Your task to perform on an android device: open wifi settings Image 0: 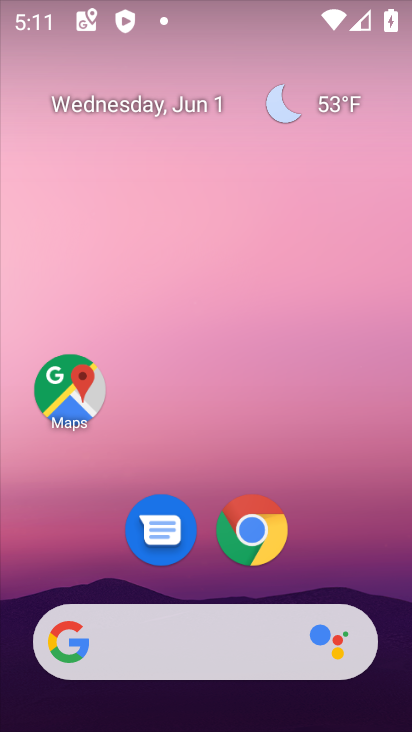
Step 0: drag from (195, 584) to (173, 103)
Your task to perform on an android device: open wifi settings Image 1: 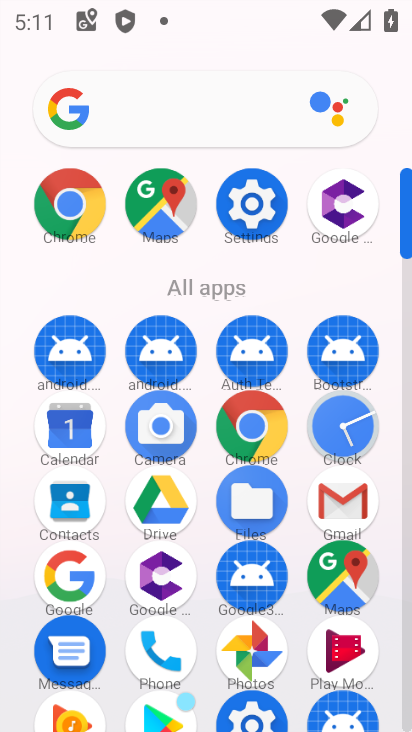
Step 1: click (271, 212)
Your task to perform on an android device: open wifi settings Image 2: 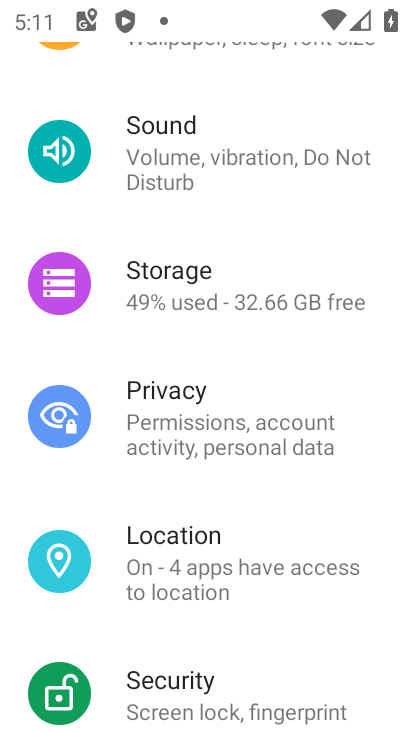
Step 2: drag from (271, 212) to (260, 394)
Your task to perform on an android device: open wifi settings Image 3: 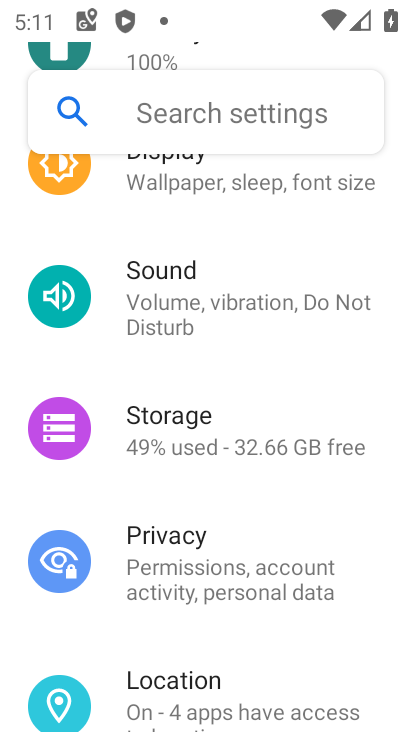
Step 3: drag from (199, 275) to (193, 608)
Your task to perform on an android device: open wifi settings Image 4: 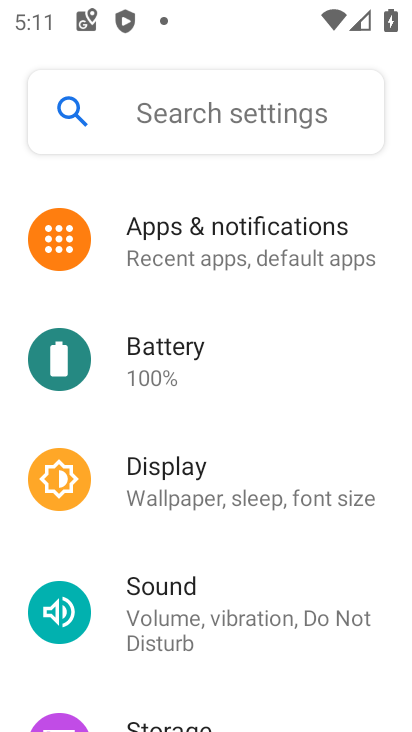
Step 4: drag from (186, 286) to (183, 584)
Your task to perform on an android device: open wifi settings Image 5: 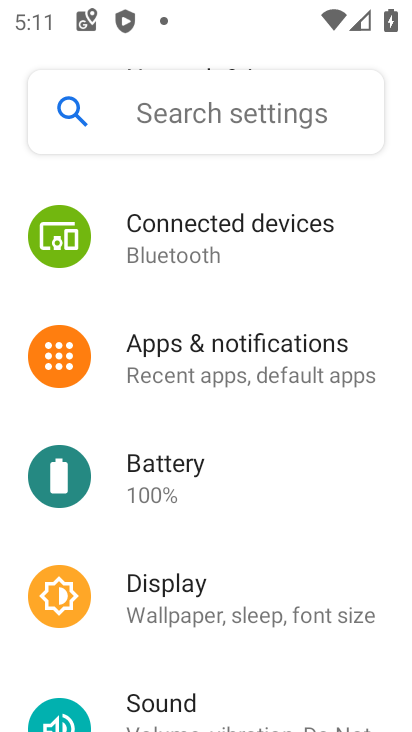
Step 5: drag from (207, 261) to (204, 671)
Your task to perform on an android device: open wifi settings Image 6: 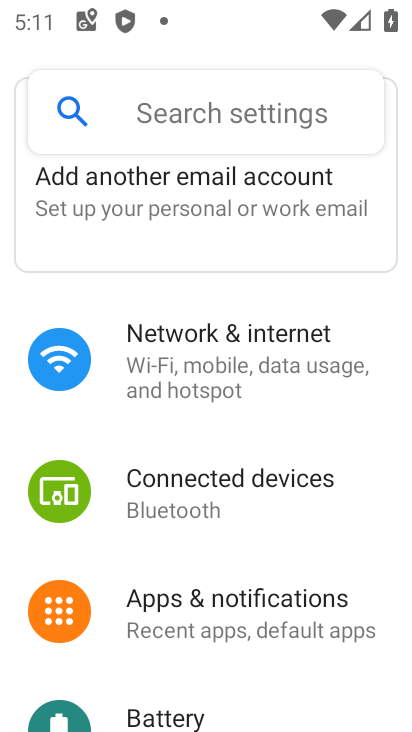
Step 6: click (178, 360)
Your task to perform on an android device: open wifi settings Image 7: 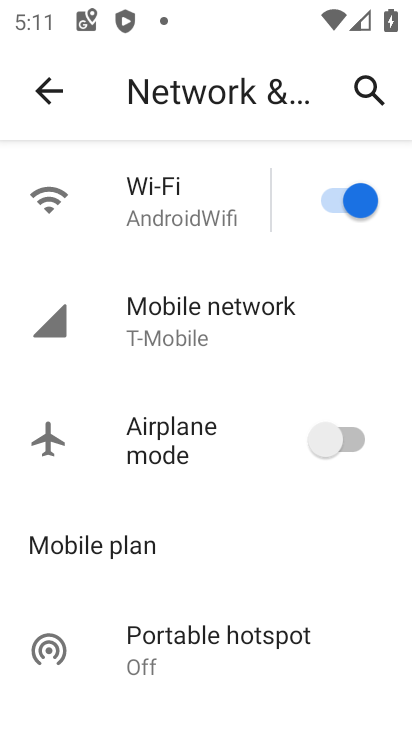
Step 7: click (155, 204)
Your task to perform on an android device: open wifi settings Image 8: 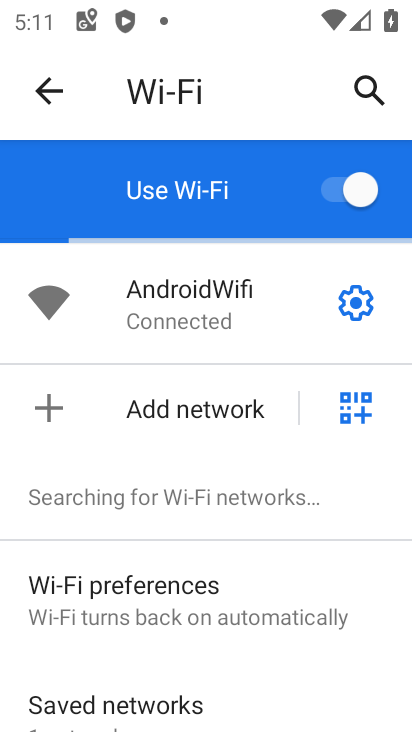
Step 8: task complete